Your task to perform on an android device: Open calendar and show me the first week of next month Image 0: 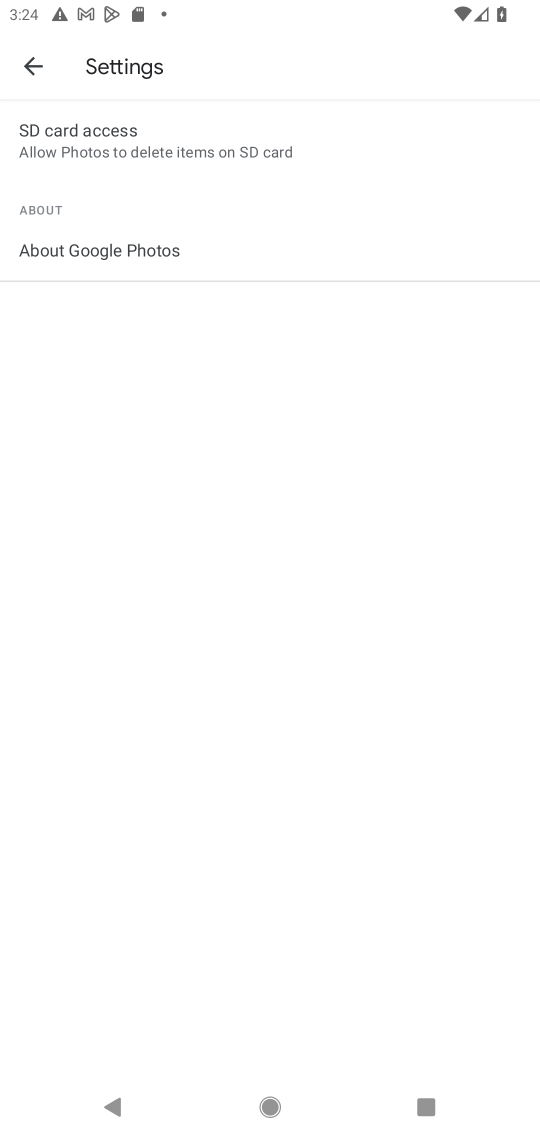
Step 0: press home button
Your task to perform on an android device: Open calendar and show me the first week of next month Image 1: 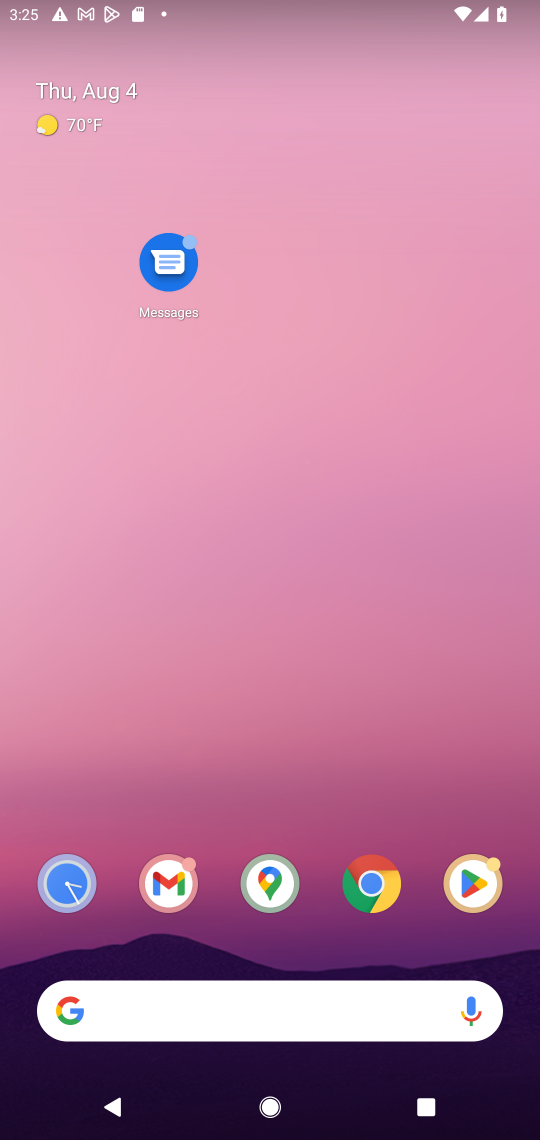
Step 1: drag from (303, 965) to (303, 203)
Your task to perform on an android device: Open calendar and show me the first week of next month Image 2: 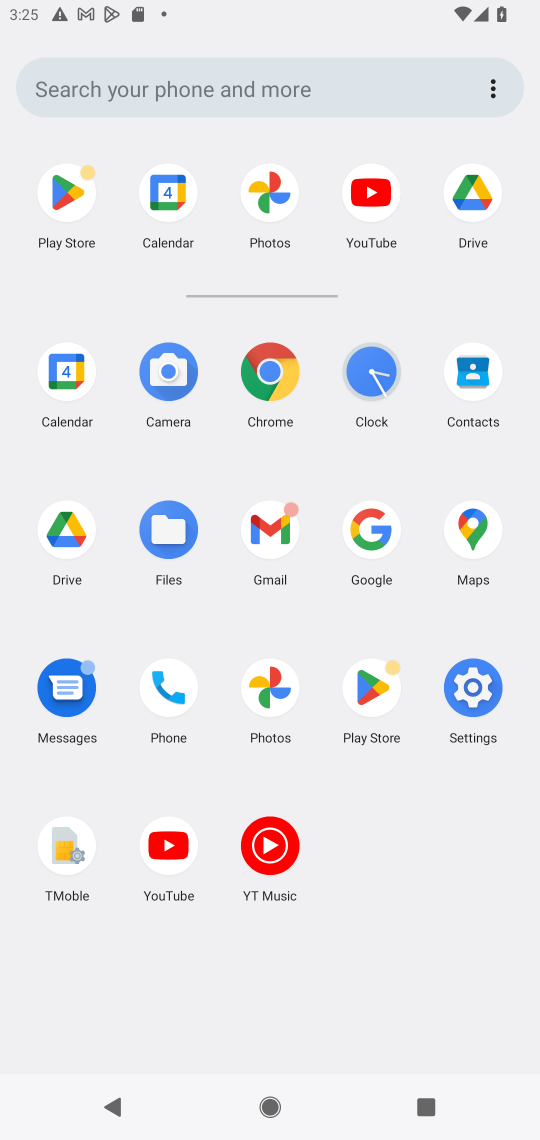
Step 2: click (65, 380)
Your task to perform on an android device: Open calendar and show me the first week of next month Image 3: 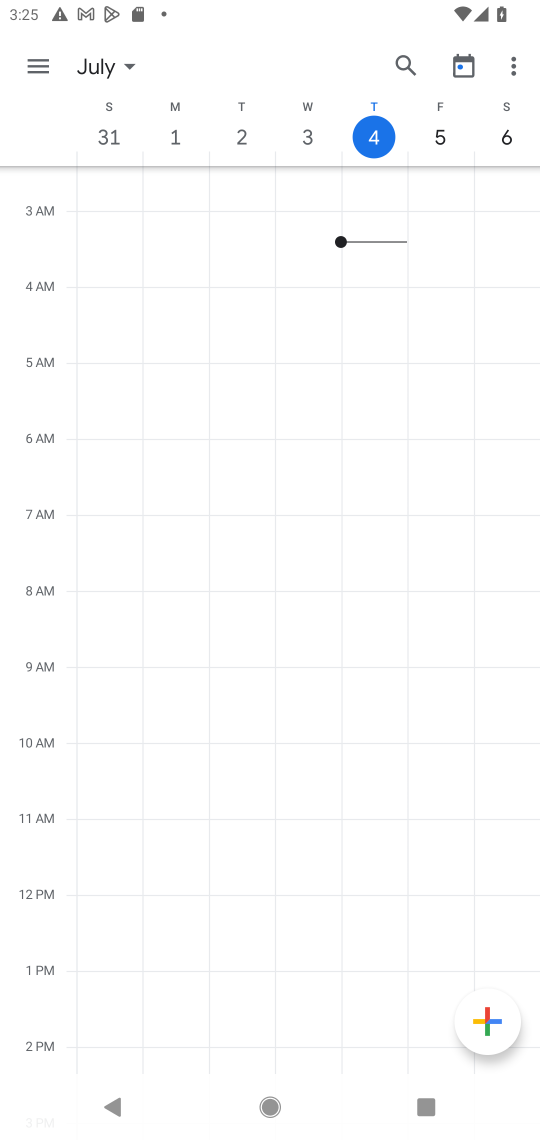
Step 3: click (127, 65)
Your task to perform on an android device: Open calendar and show me the first week of next month Image 4: 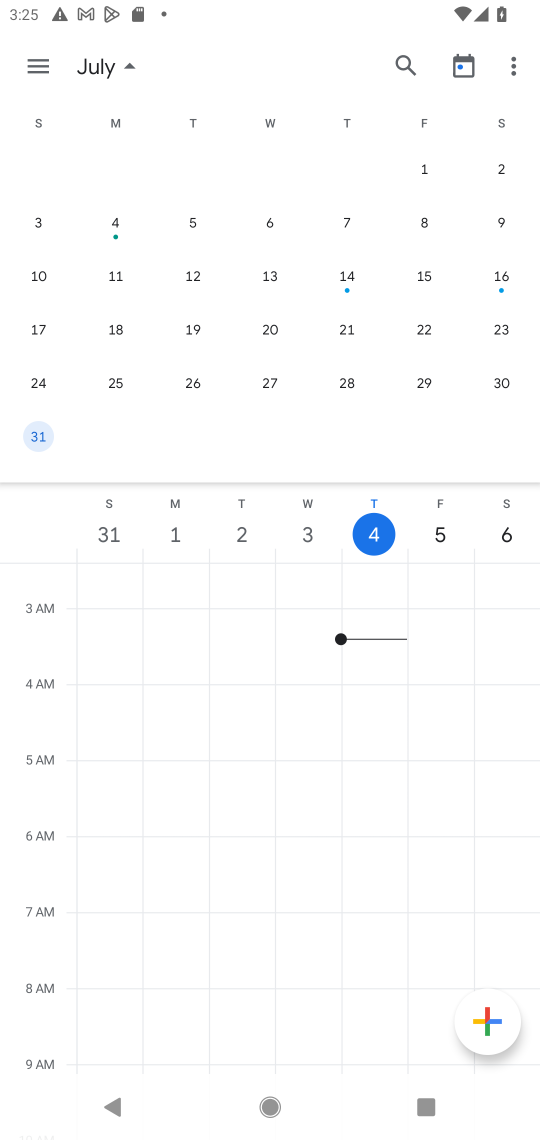
Step 4: drag from (468, 322) to (77, 298)
Your task to perform on an android device: Open calendar and show me the first week of next month Image 5: 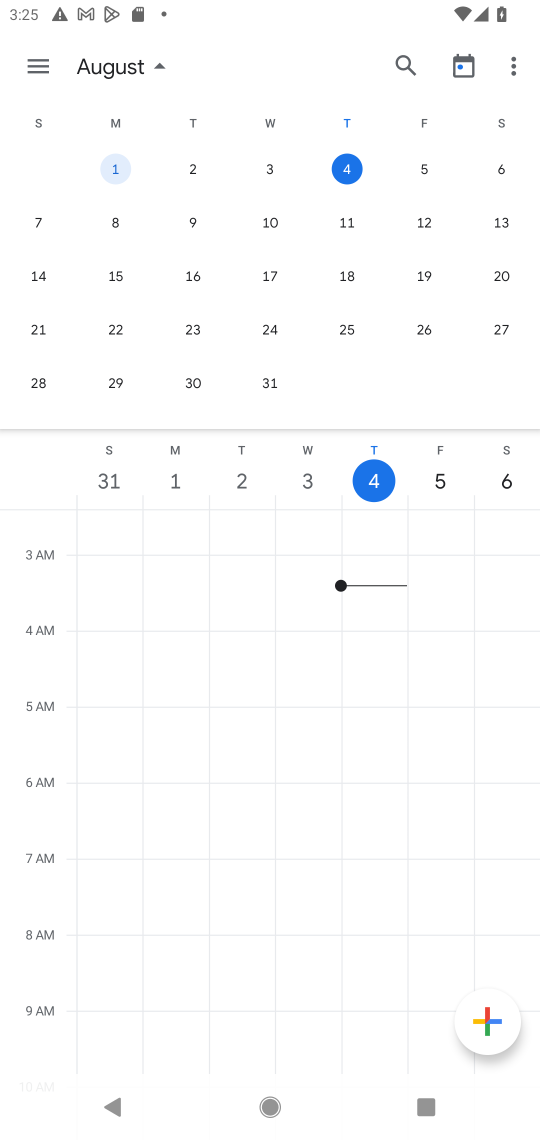
Step 5: drag from (456, 293) to (81, 288)
Your task to perform on an android device: Open calendar and show me the first week of next month Image 6: 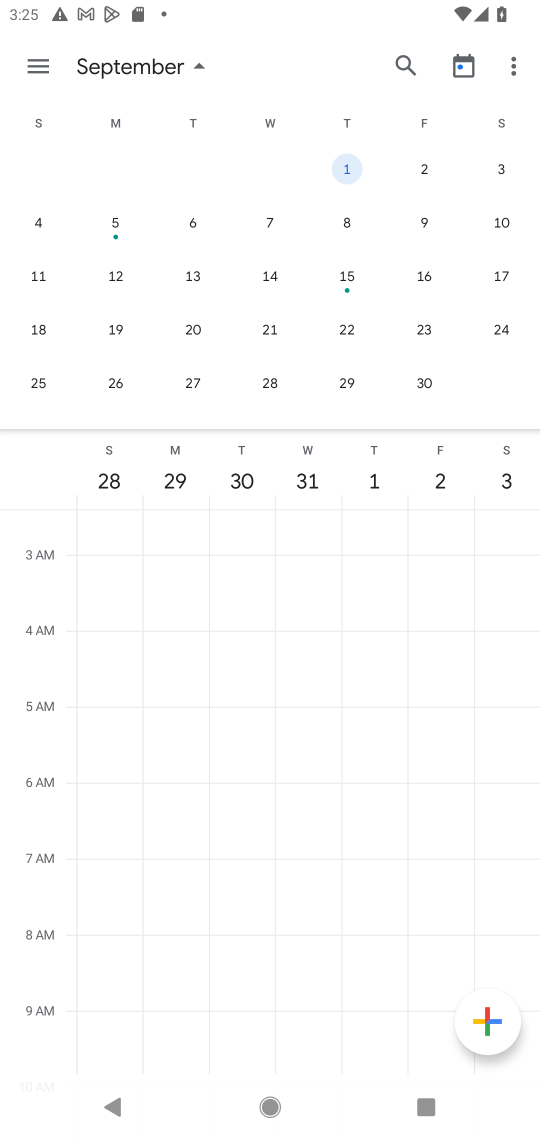
Step 6: click (113, 215)
Your task to perform on an android device: Open calendar and show me the first week of next month Image 7: 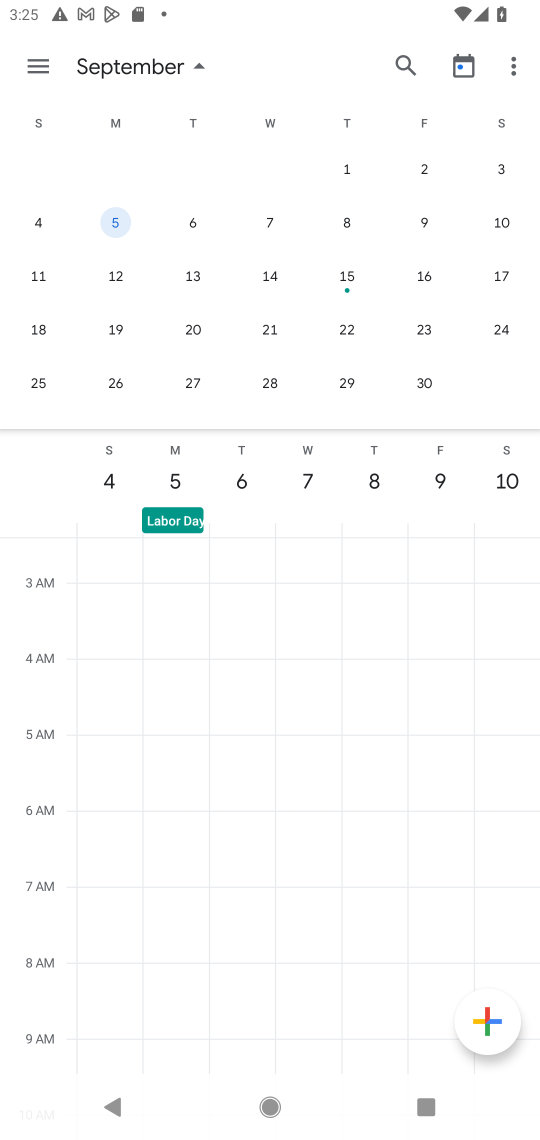
Step 7: click (41, 64)
Your task to perform on an android device: Open calendar and show me the first week of next month Image 8: 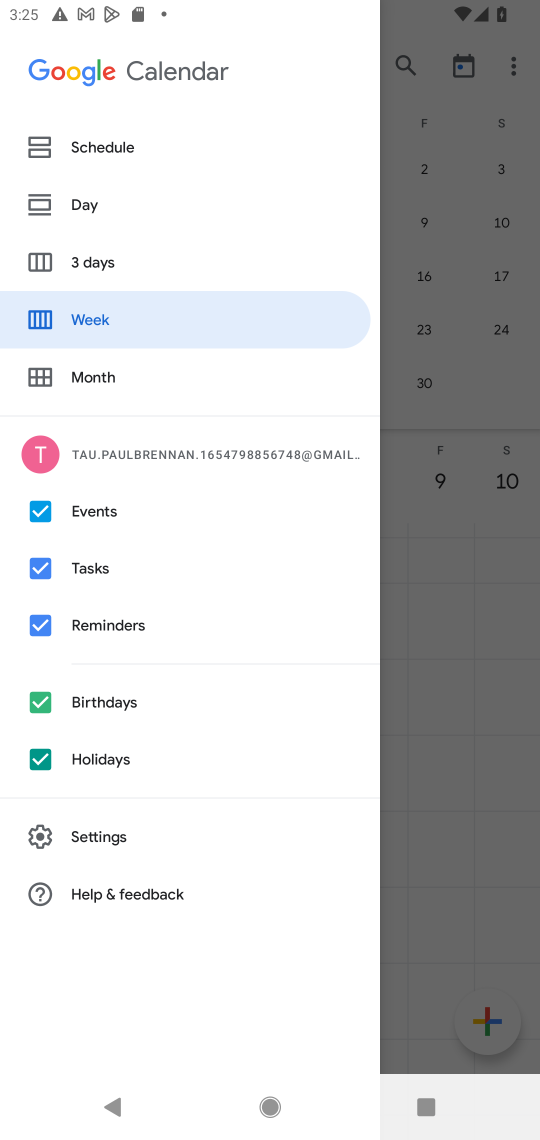
Step 8: click (114, 322)
Your task to perform on an android device: Open calendar and show me the first week of next month Image 9: 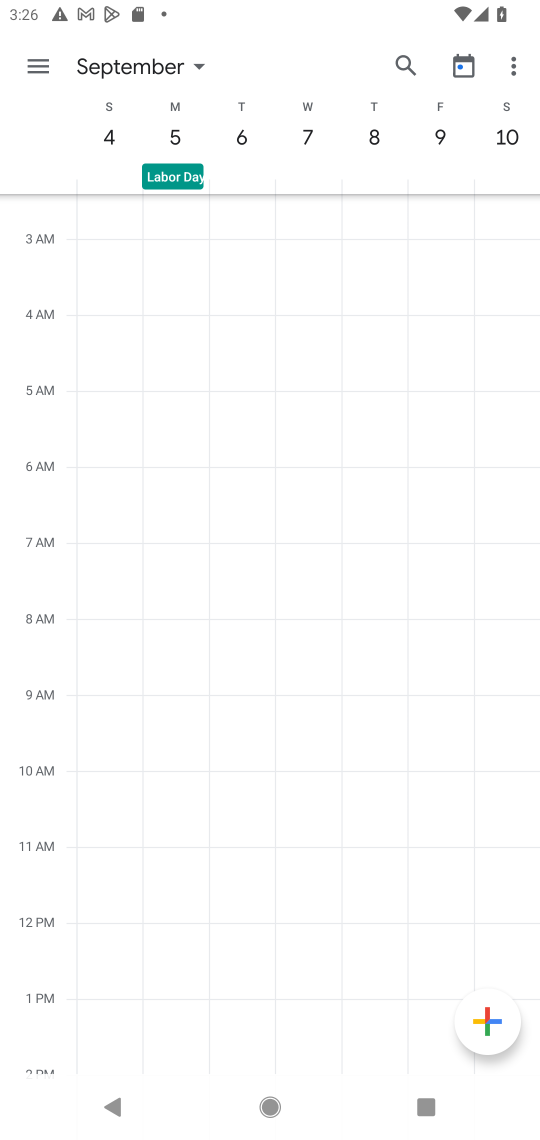
Step 9: task complete